Your task to perform on an android device: Open Google Image 0: 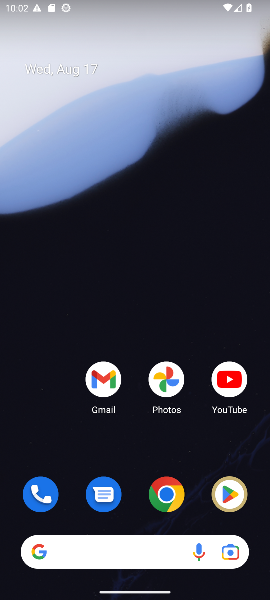
Step 0: drag from (196, 465) to (210, 91)
Your task to perform on an android device: Open Google Image 1: 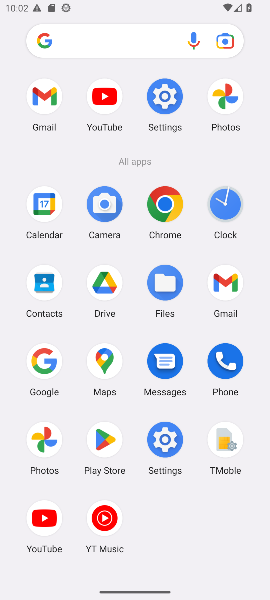
Step 1: click (46, 368)
Your task to perform on an android device: Open Google Image 2: 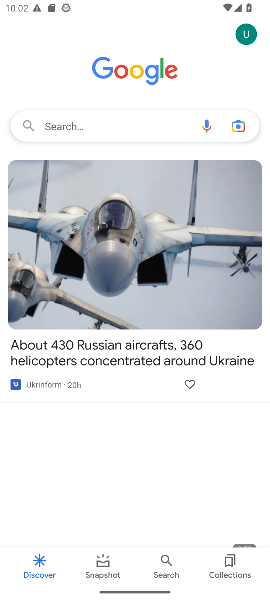
Step 2: task complete